Your task to perform on an android device: move a message to another label in the gmail app Image 0: 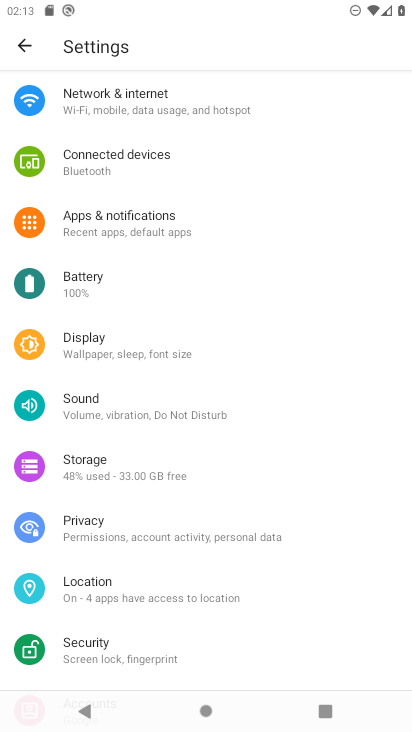
Step 0: press home button
Your task to perform on an android device: move a message to another label in the gmail app Image 1: 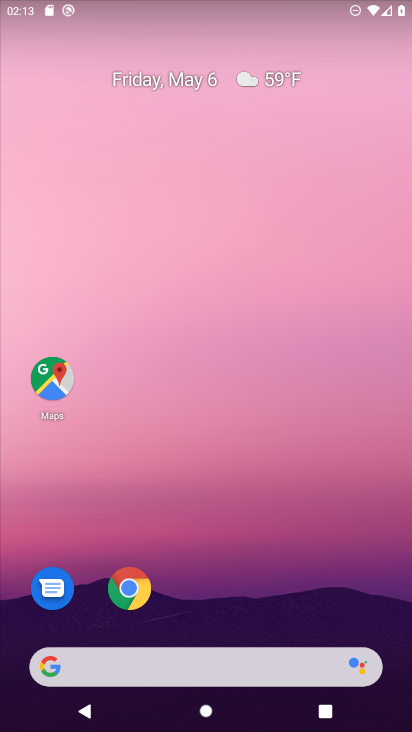
Step 1: drag from (243, 628) to (281, 117)
Your task to perform on an android device: move a message to another label in the gmail app Image 2: 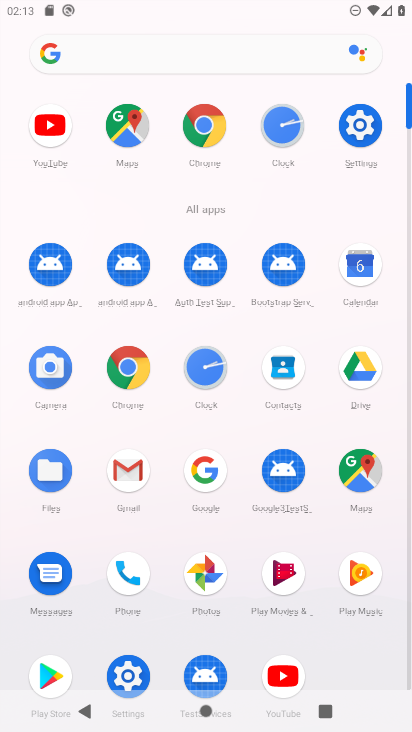
Step 2: click (115, 475)
Your task to perform on an android device: move a message to another label in the gmail app Image 3: 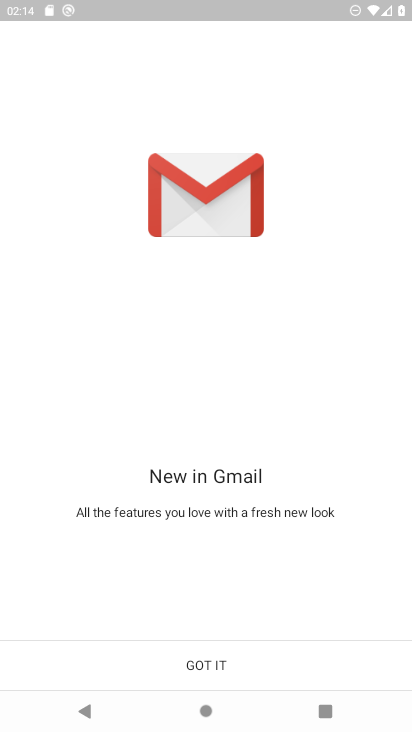
Step 3: click (228, 675)
Your task to perform on an android device: move a message to another label in the gmail app Image 4: 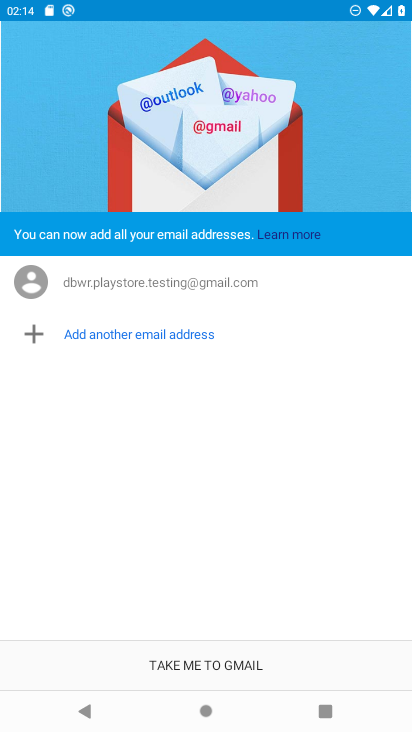
Step 4: click (228, 675)
Your task to perform on an android device: move a message to another label in the gmail app Image 5: 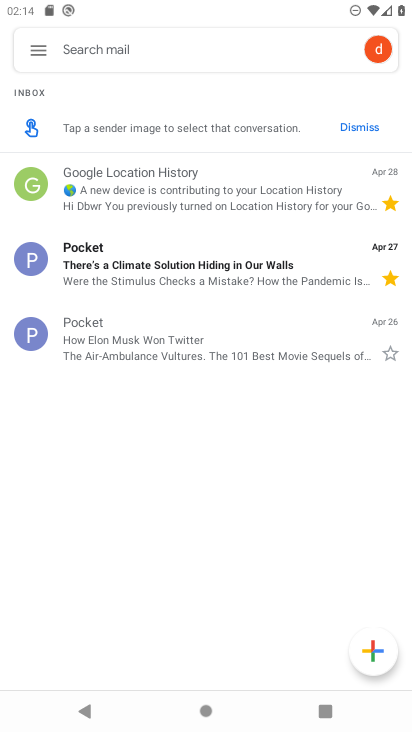
Step 5: click (33, 264)
Your task to perform on an android device: move a message to another label in the gmail app Image 6: 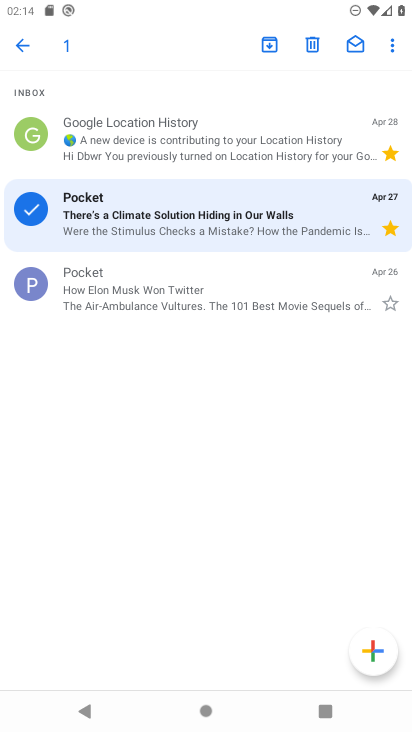
Step 6: click (391, 38)
Your task to perform on an android device: move a message to another label in the gmail app Image 7: 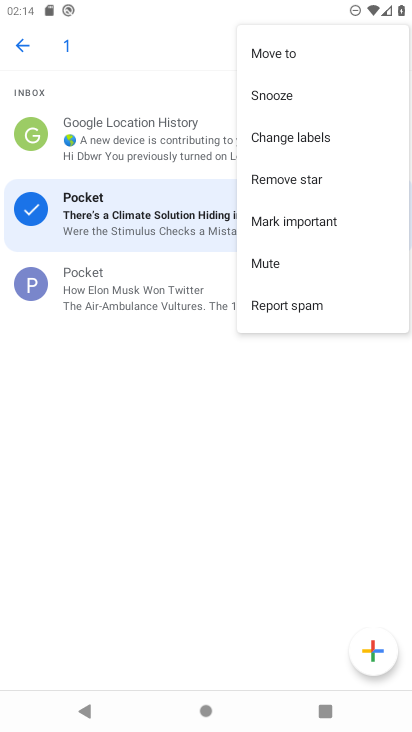
Step 7: click (292, 135)
Your task to perform on an android device: move a message to another label in the gmail app Image 8: 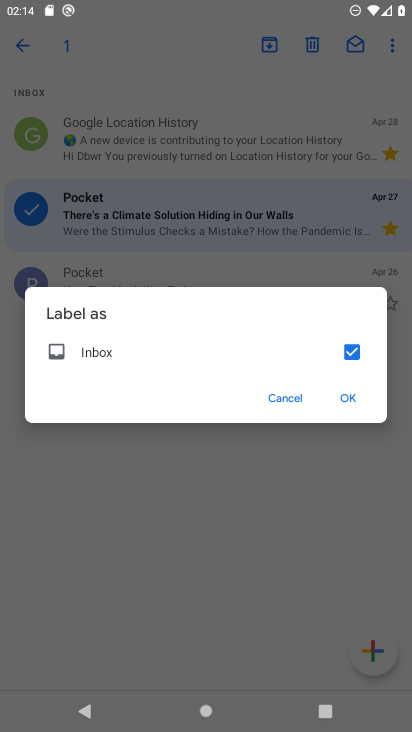
Step 8: click (347, 406)
Your task to perform on an android device: move a message to another label in the gmail app Image 9: 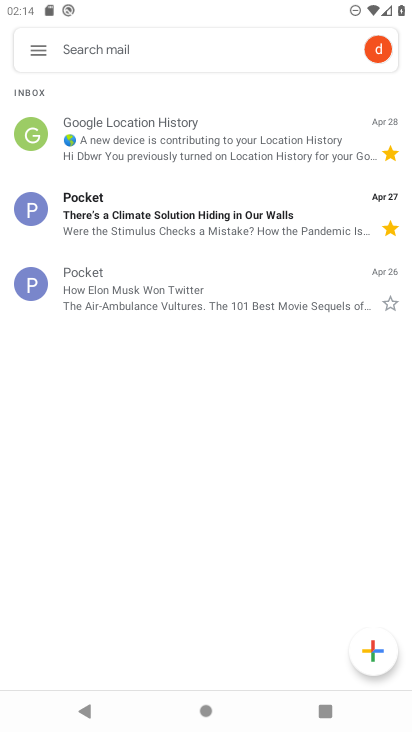
Step 9: task complete